Your task to perform on an android device: install app "VLC for Android" Image 0: 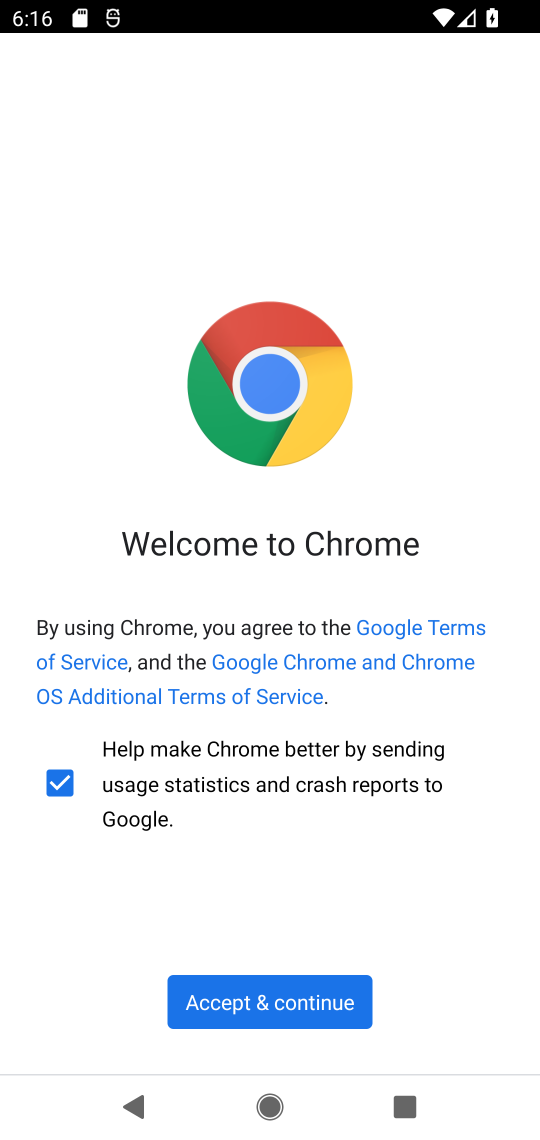
Step 0: press home button
Your task to perform on an android device: install app "VLC for Android" Image 1: 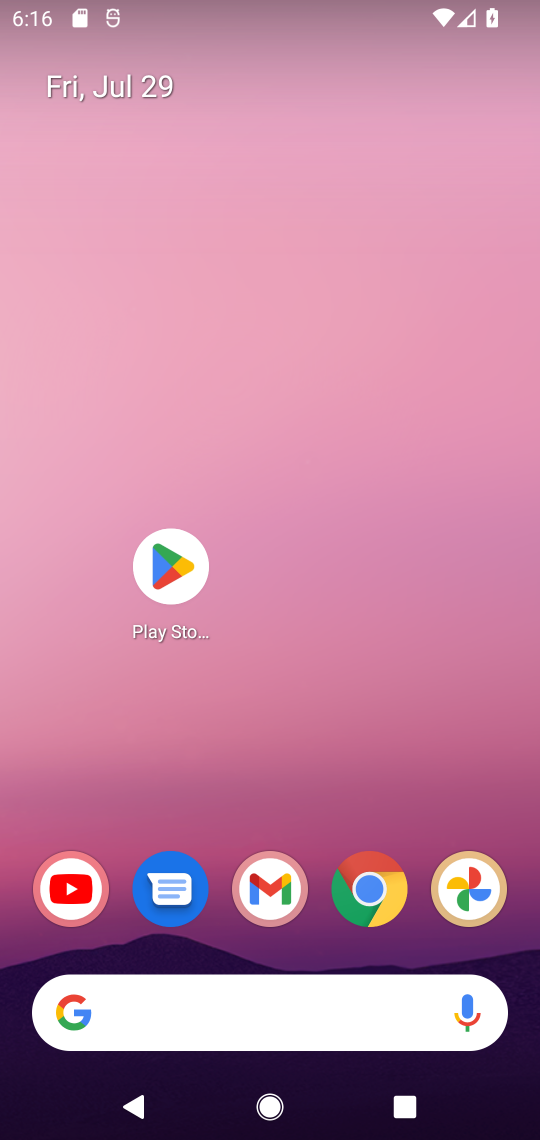
Step 1: click (164, 564)
Your task to perform on an android device: install app "VLC for Android" Image 2: 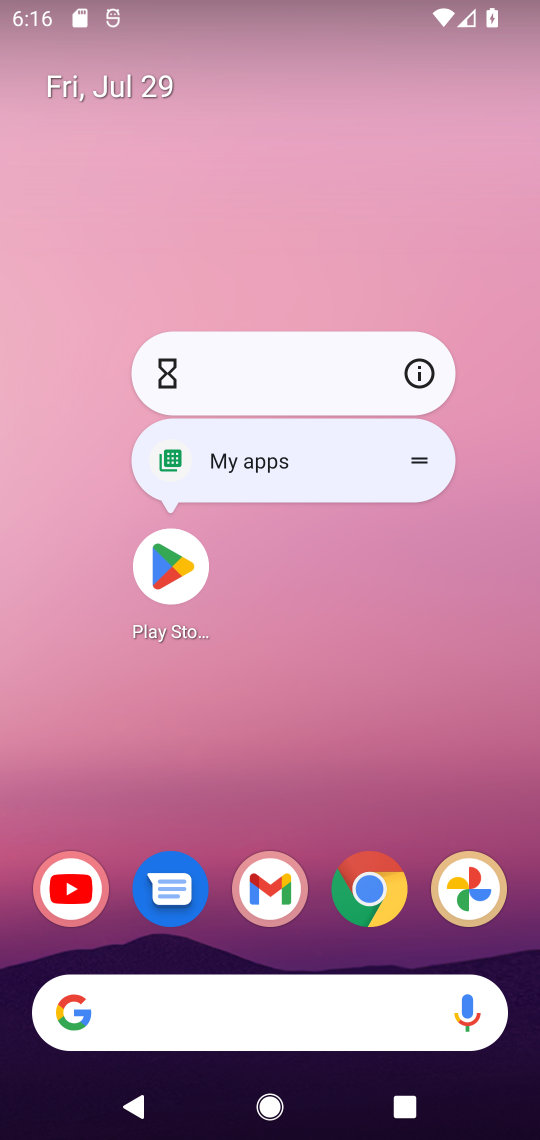
Step 2: click (182, 573)
Your task to perform on an android device: install app "VLC for Android" Image 3: 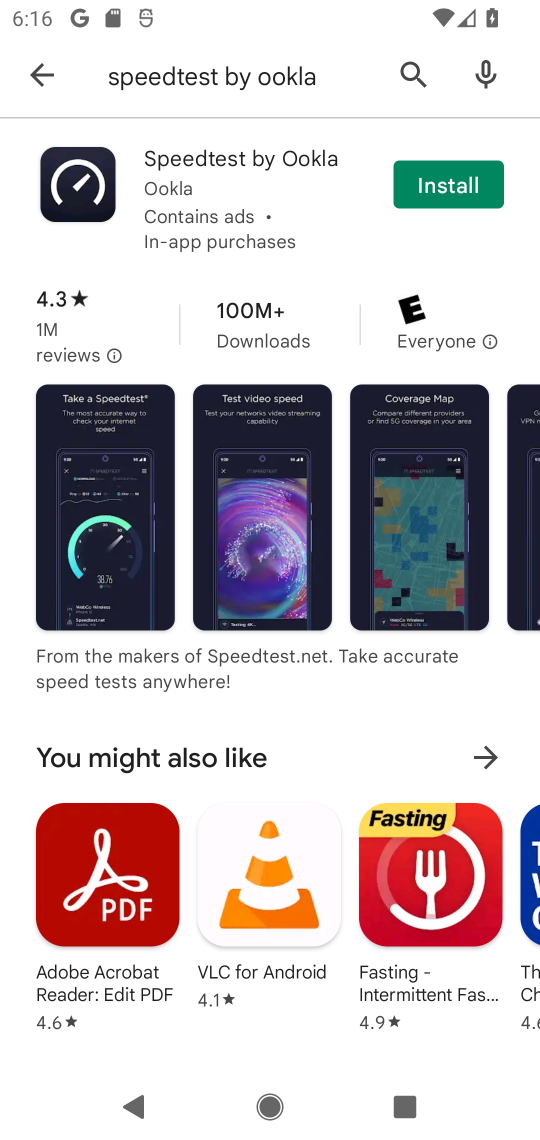
Step 3: click (405, 66)
Your task to perform on an android device: install app "VLC for Android" Image 4: 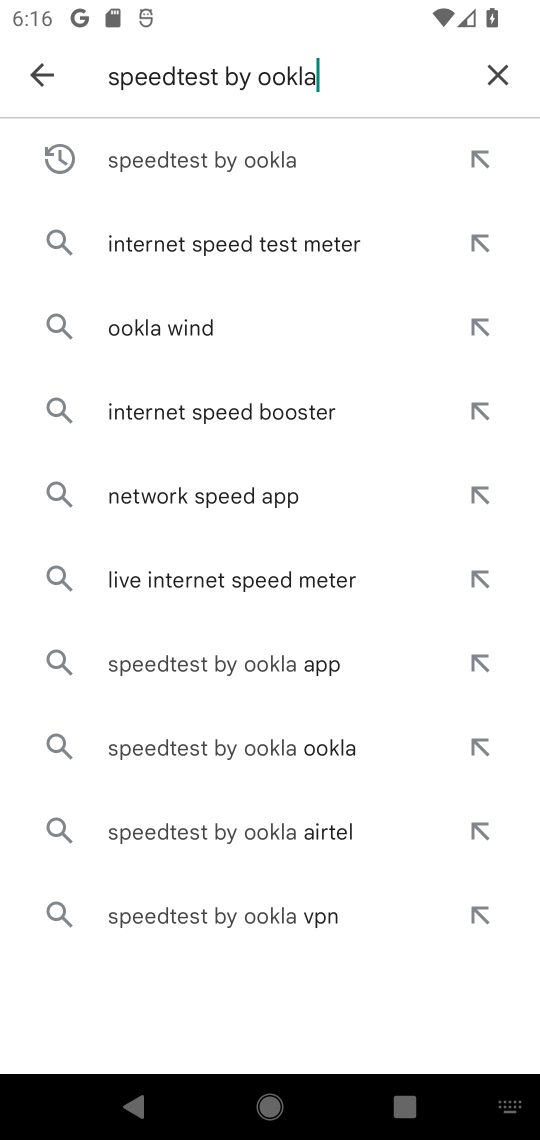
Step 4: click (493, 69)
Your task to perform on an android device: install app "VLC for Android" Image 5: 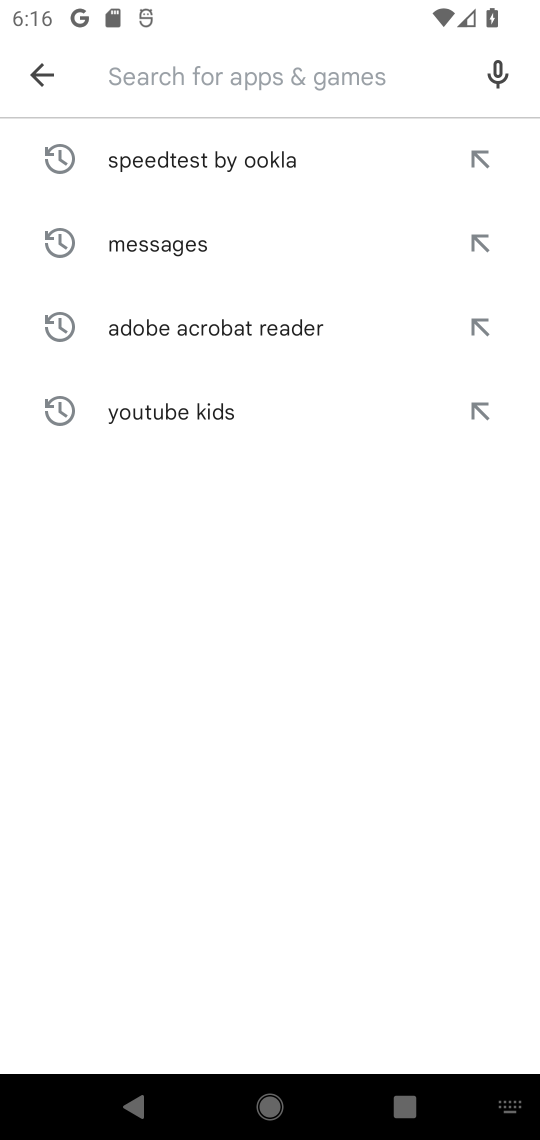
Step 5: type "VLC for Android"
Your task to perform on an android device: install app "VLC for Android" Image 6: 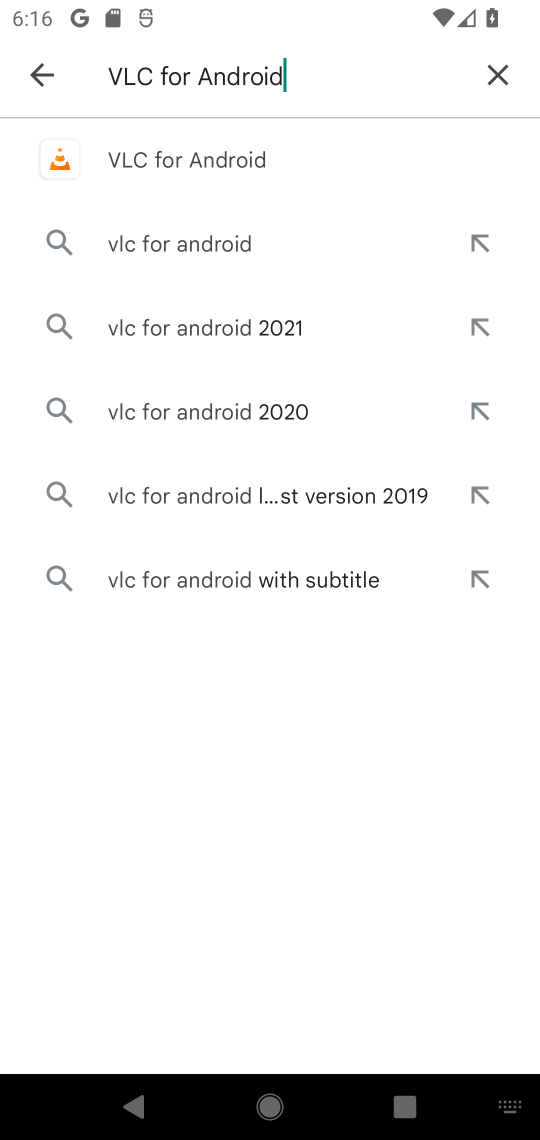
Step 6: click (203, 162)
Your task to perform on an android device: install app "VLC for Android" Image 7: 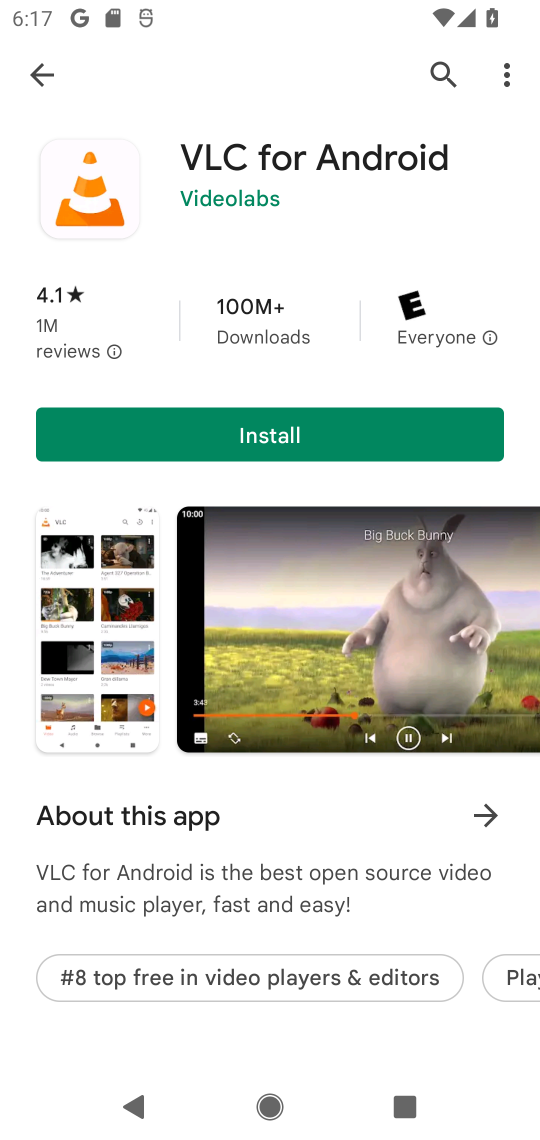
Step 7: click (309, 434)
Your task to perform on an android device: install app "VLC for Android" Image 8: 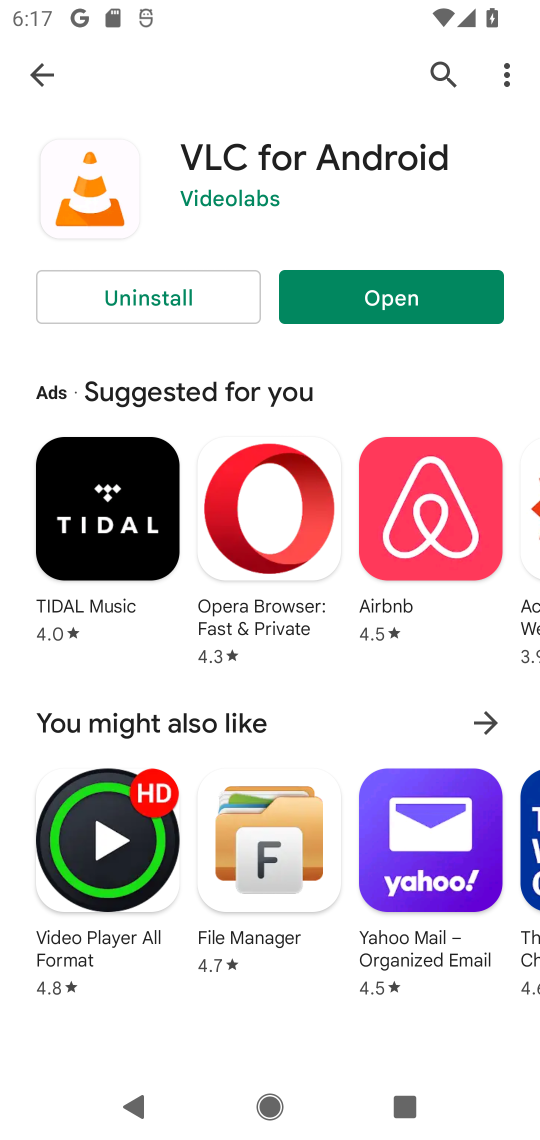
Step 8: task complete